Your task to perform on an android device: Open sound settings Image 0: 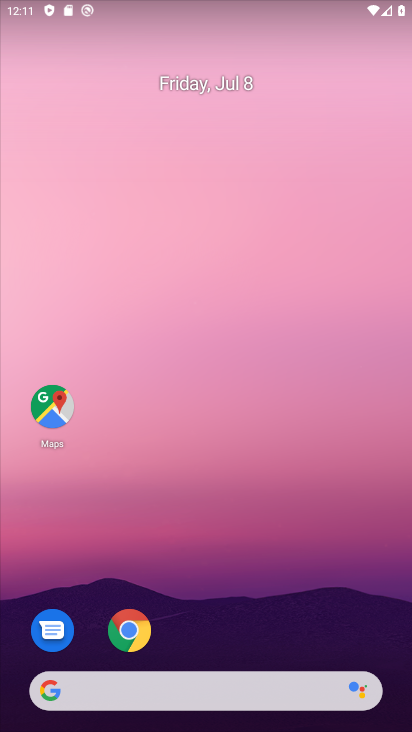
Step 0: drag from (397, 660) to (269, 136)
Your task to perform on an android device: Open sound settings Image 1: 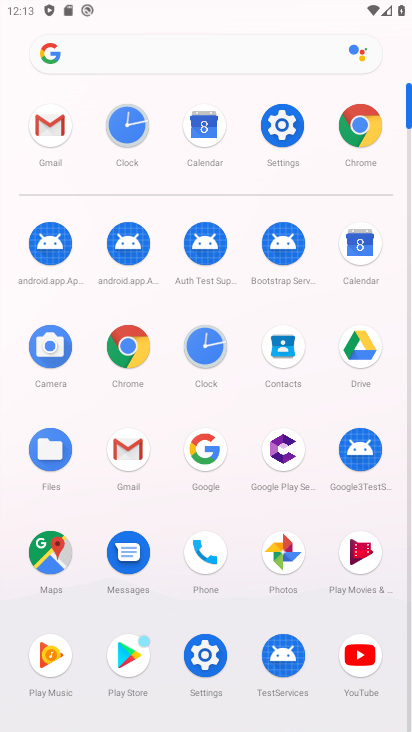
Step 1: click (201, 664)
Your task to perform on an android device: Open sound settings Image 2: 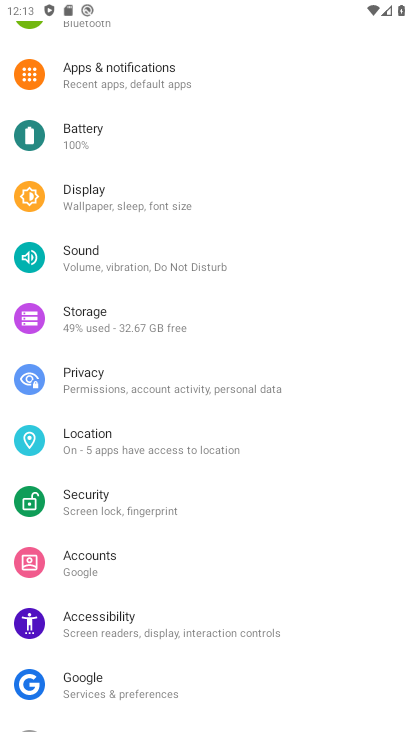
Step 2: click (93, 277)
Your task to perform on an android device: Open sound settings Image 3: 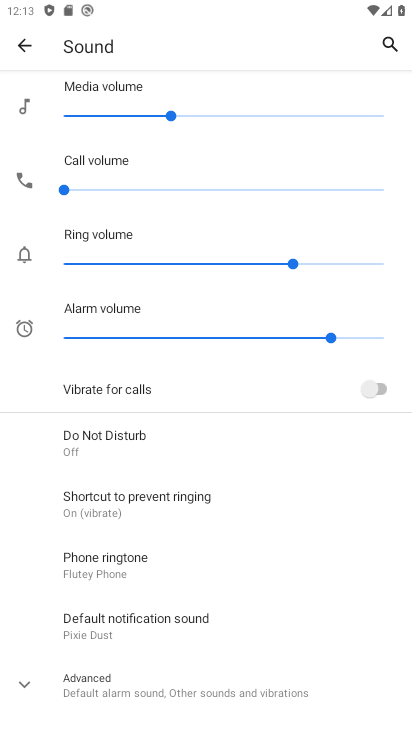
Step 3: task complete